Your task to perform on an android device: snooze an email in the gmail app Image 0: 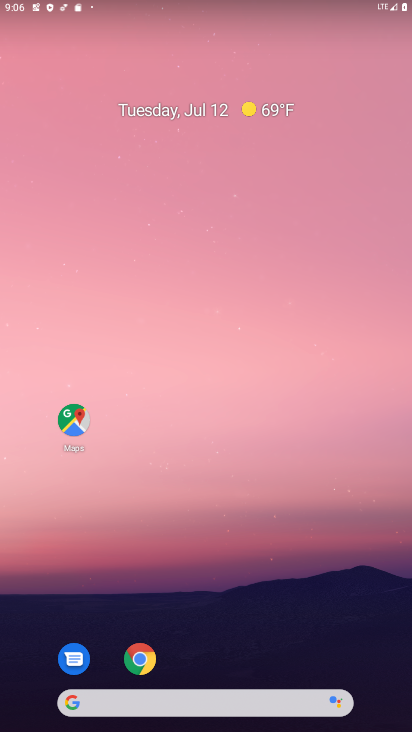
Step 0: drag from (236, 717) to (237, 158)
Your task to perform on an android device: snooze an email in the gmail app Image 1: 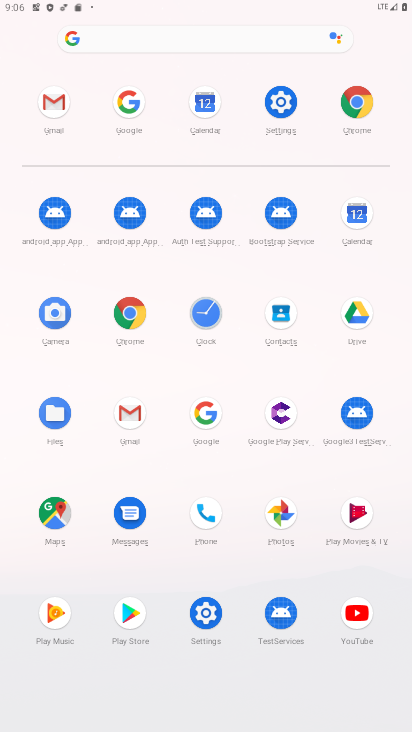
Step 1: click (135, 408)
Your task to perform on an android device: snooze an email in the gmail app Image 2: 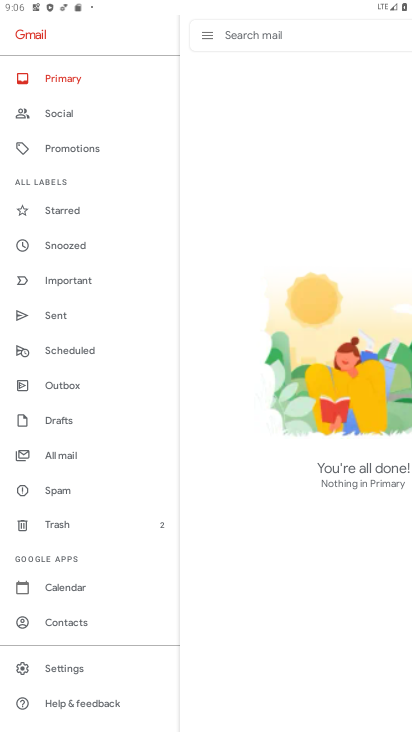
Step 2: click (72, 75)
Your task to perform on an android device: snooze an email in the gmail app Image 3: 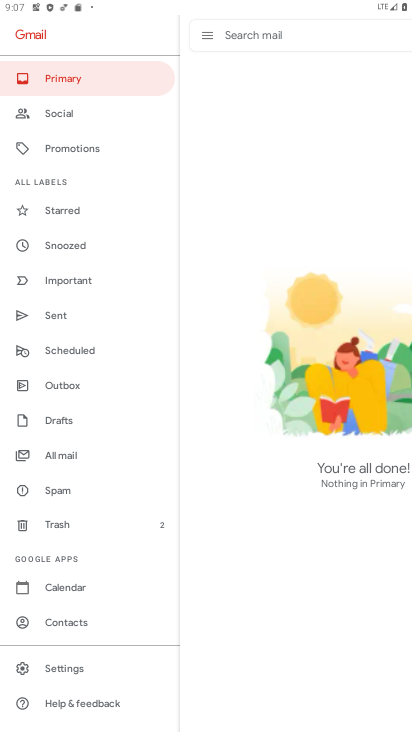
Step 3: task complete